Your task to perform on an android device: Go to Amazon Image 0: 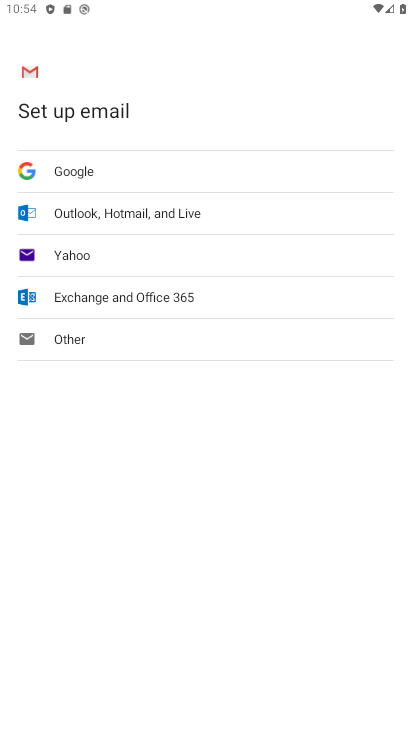
Step 0: press home button
Your task to perform on an android device: Go to Amazon Image 1: 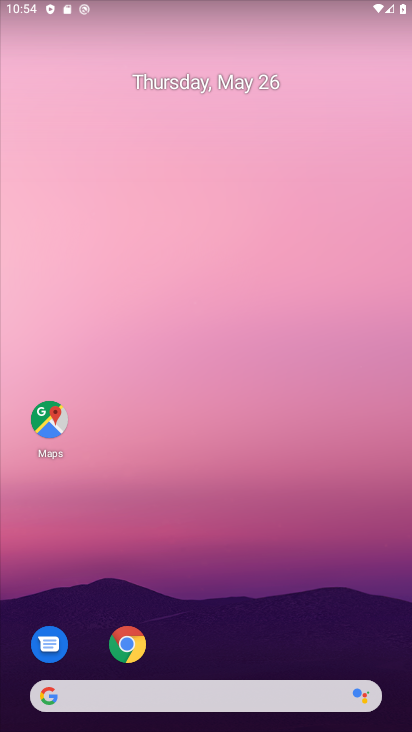
Step 1: click (128, 652)
Your task to perform on an android device: Go to Amazon Image 2: 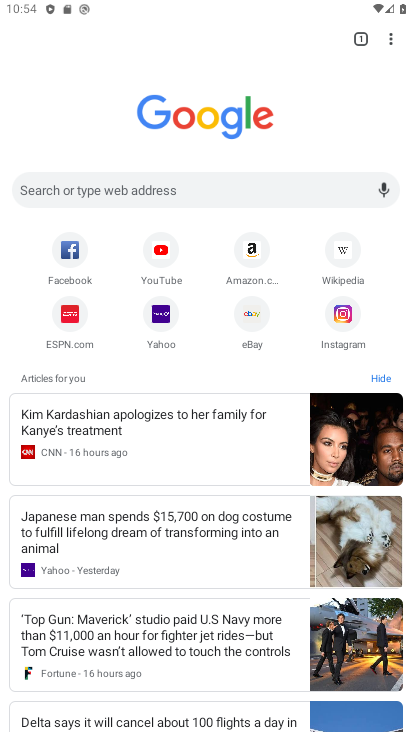
Step 2: click (250, 260)
Your task to perform on an android device: Go to Amazon Image 3: 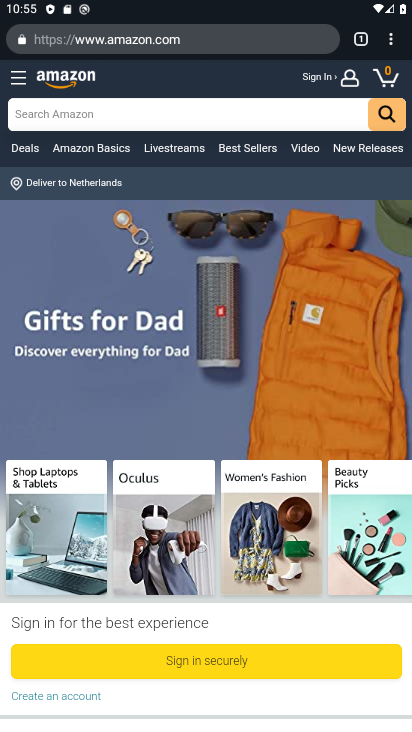
Step 3: task complete